Your task to perform on an android device: allow cookies in the chrome app Image 0: 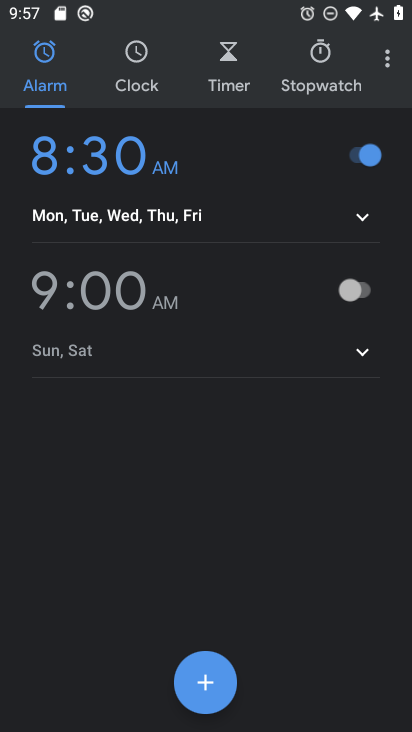
Step 0: press home button
Your task to perform on an android device: allow cookies in the chrome app Image 1: 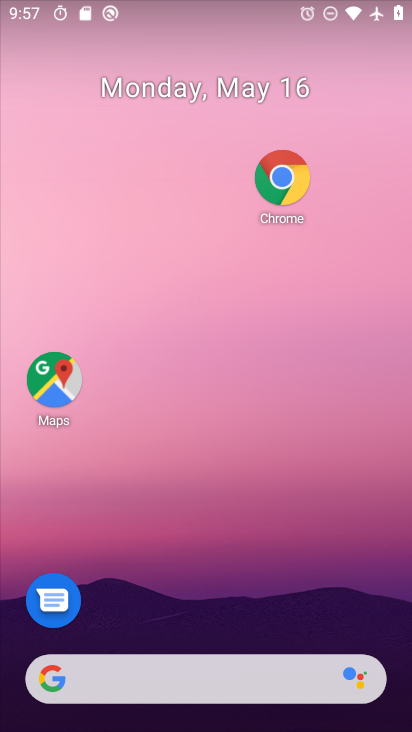
Step 1: click (281, 188)
Your task to perform on an android device: allow cookies in the chrome app Image 2: 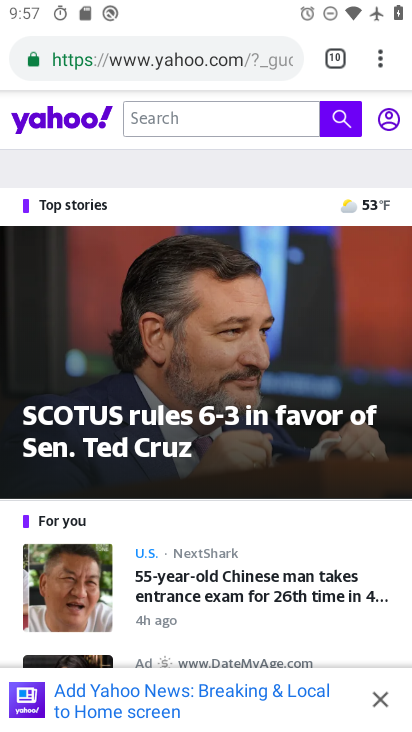
Step 2: drag from (375, 60) to (248, 634)
Your task to perform on an android device: allow cookies in the chrome app Image 3: 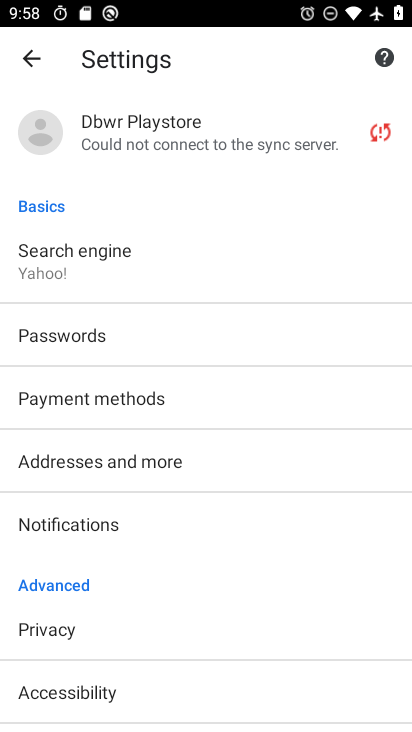
Step 3: drag from (163, 613) to (285, 176)
Your task to perform on an android device: allow cookies in the chrome app Image 4: 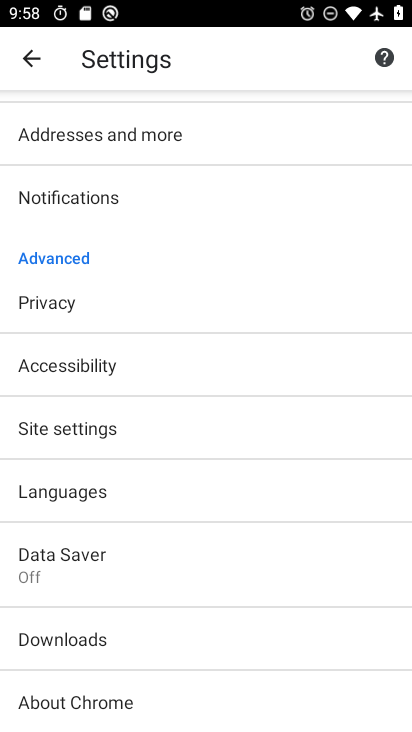
Step 4: click (64, 427)
Your task to perform on an android device: allow cookies in the chrome app Image 5: 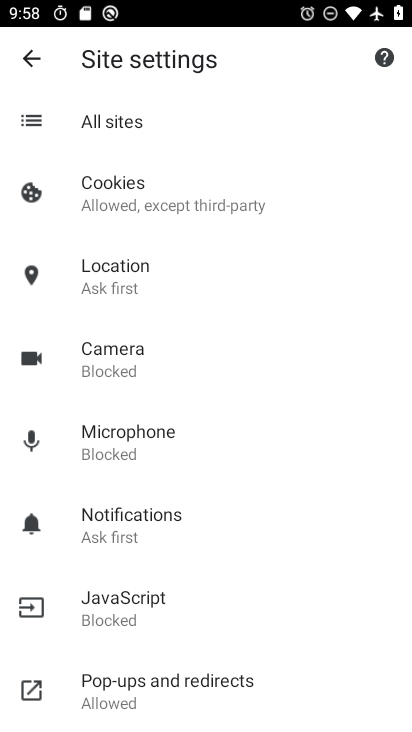
Step 5: click (142, 198)
Your task to perform on an android device: allow cookies in the chrome app Image 6: 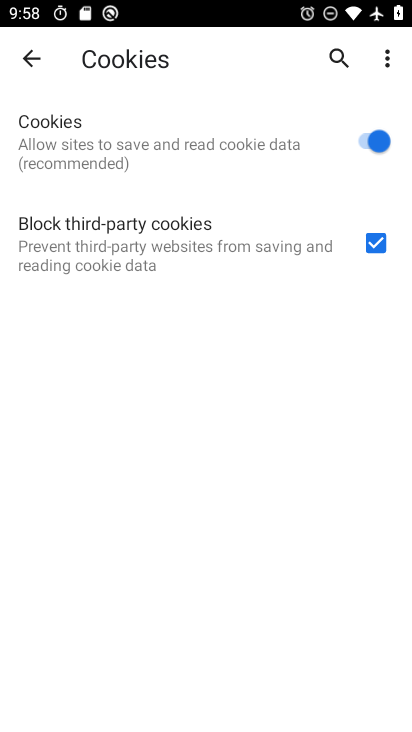
Step 6: task complete